Your task to perform on an android device: allow notifications from all sites in the chrome app Image 0: 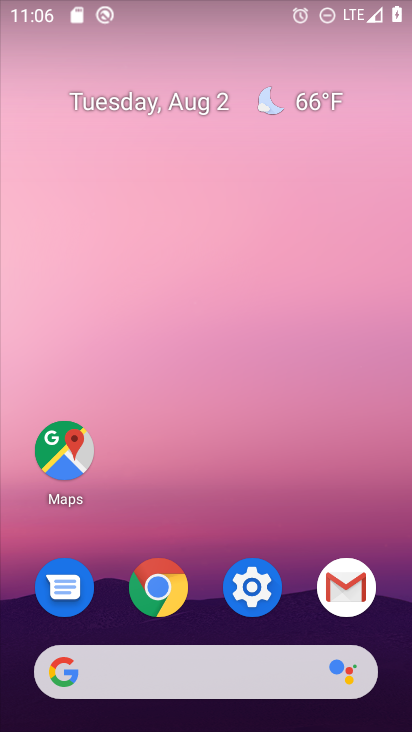
Step 0: click (165, 579)
Your task to perform on an android device: allow notifications from all sites in the chrome app Image 1: 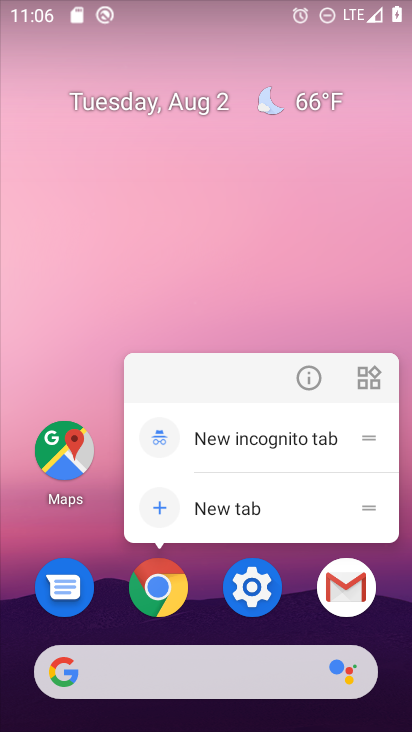
Step 1: click (159, 588)
Your task to perform on an android device: allow notifications from all sites in the chrome app Image 2: 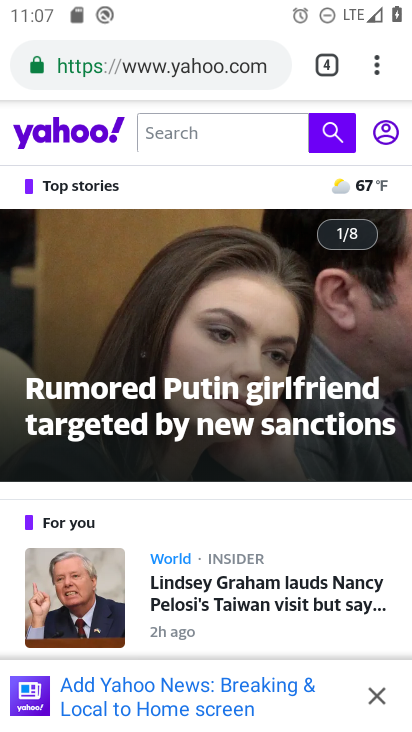
Step 2: click (369, 74)
Your task to perform on an android device: allow notifications from all sites in the chrome app Image 3: 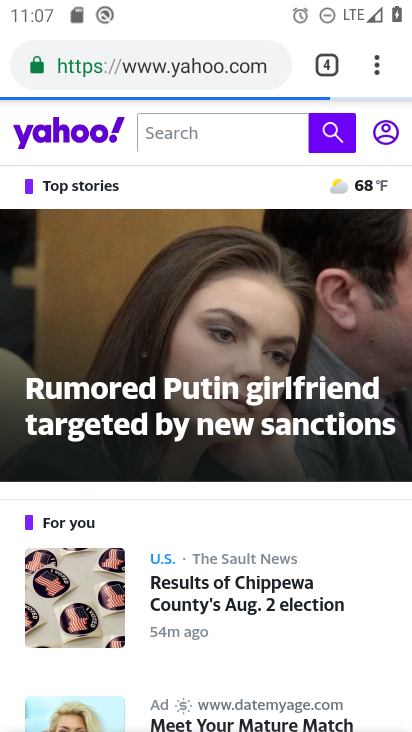
Step 3: click (365, 79)
Your task to perform on an android device: allow notifications from all sites in the chrome app Image 4: 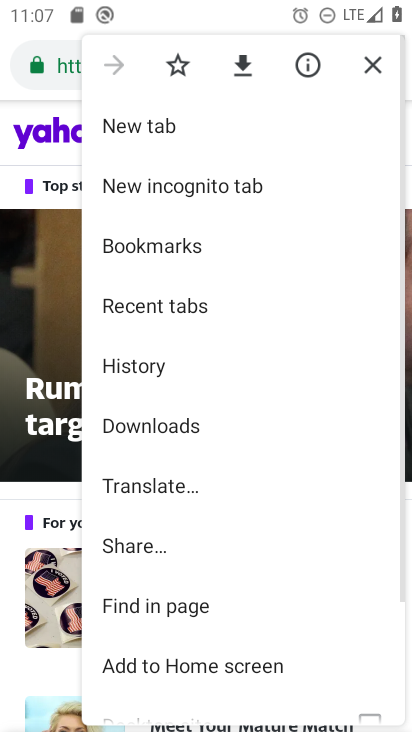
Step 4: drag from (277, 642) to (261, 422)
Your task to perform on an android device: allow notifications from all sites in the chrome app Image 5: 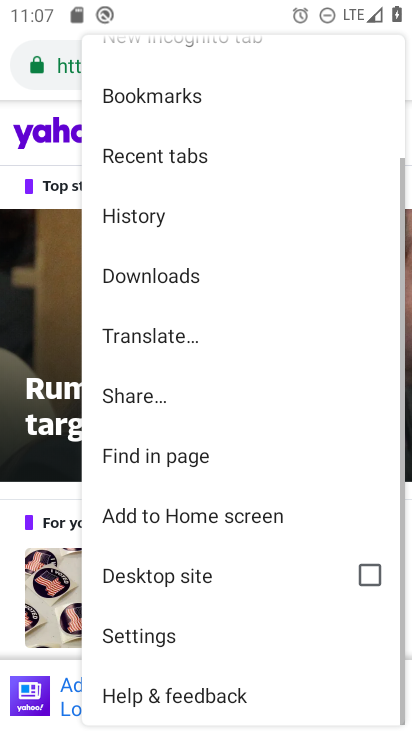
Step 5: click (190, 623)
Your task to perform on an android device: allow notifications from all sites in the chrome app Image 6: 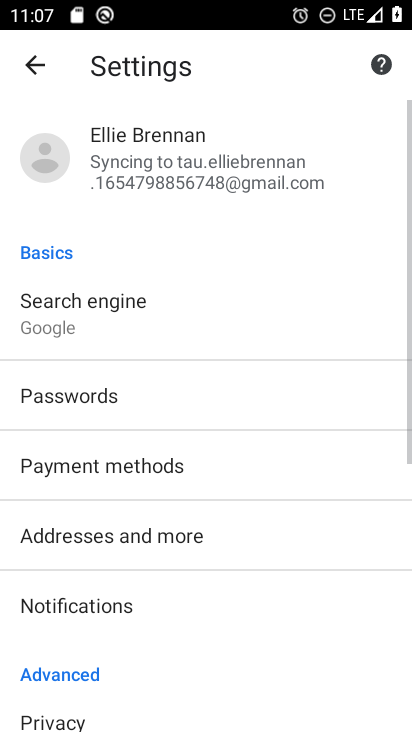
Step 6: drag from (75, 598) to (29, 356)
Your task to perform on an android device: allow notifications from all sites in the chrome app Image 7: 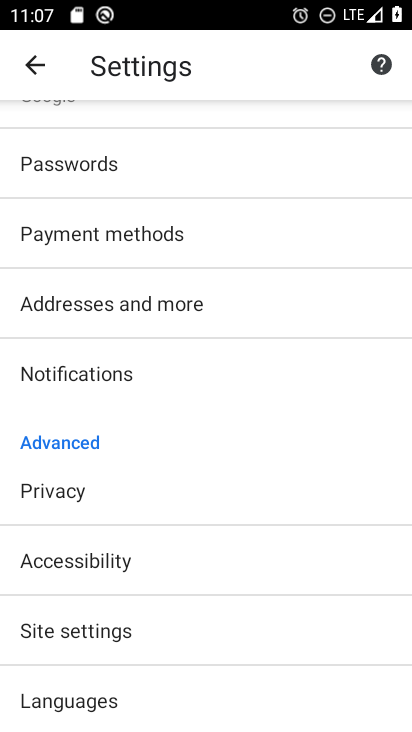
Step 7: click (106, 624)
Your task to perform on an android device: allow notifications from all sites in the chrome app Image 8: 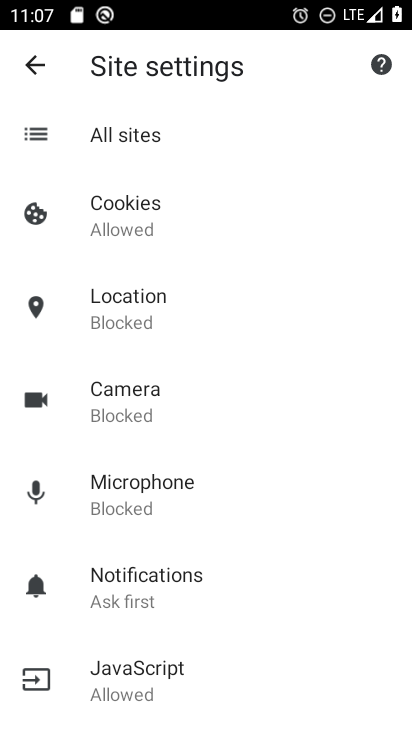
Step 8: click (139, 585)
Your task to perform on an android device: allow notifications from all sites in the chrome app Image 9: 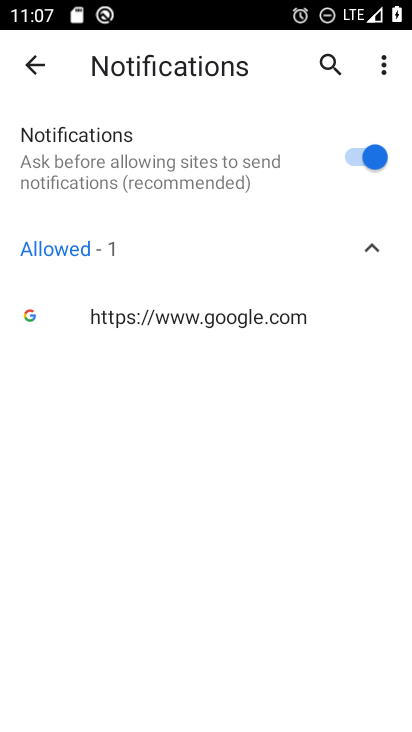
Step 9: click (250, 166)
Your task to perform on an android device: allow notifications from all sites in the chrome app Image 10: 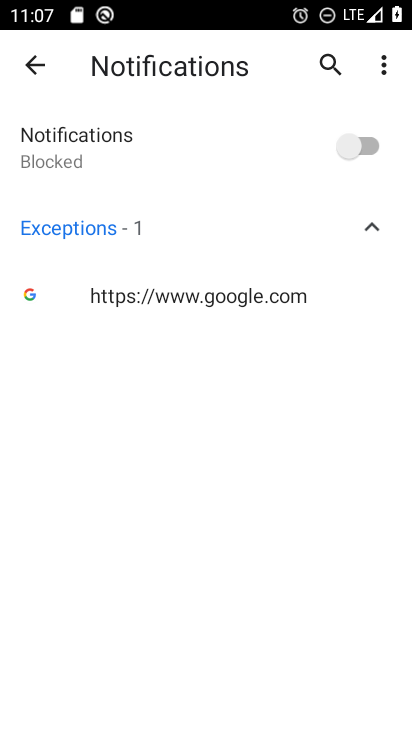
Step 10: click (250, 164)
Your task to perform on an android device: allow notifications from all sites in the chrome app Image 11: 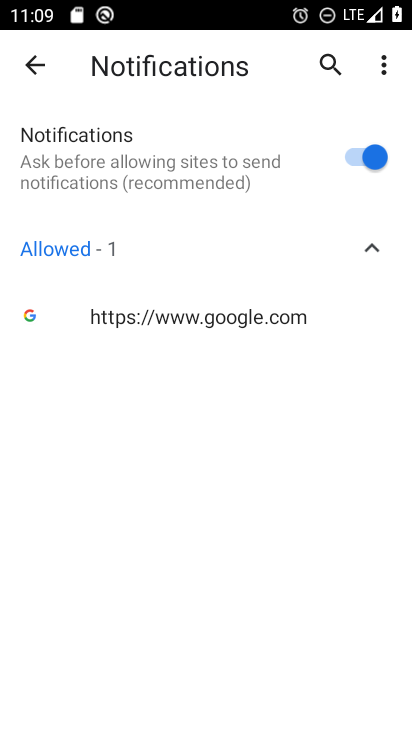
Step 11: task complete